Your task to perform on an android device: Open Android settings Image 0: 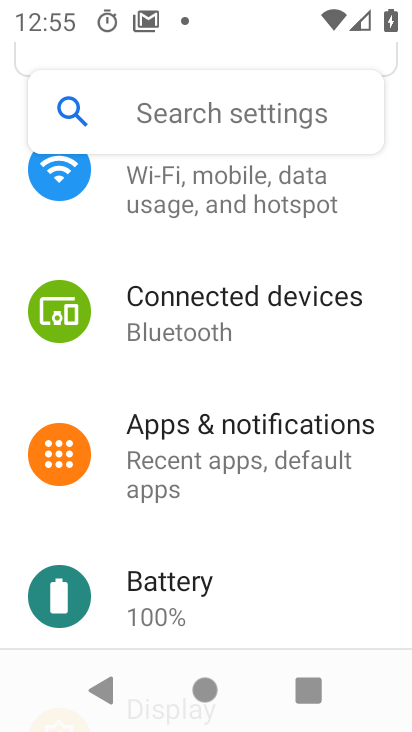
Step 0: drag from (226, 542) to (149, 235)
Your task to perform on an android device: Open Android settings Image 1: 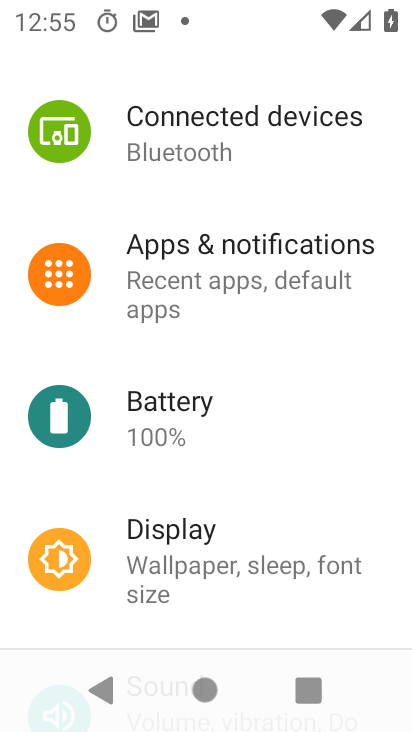
Step 1: drag from (249, 592) to (250, 199)
Your task to perform on an android device: Open Android settings Image 2: 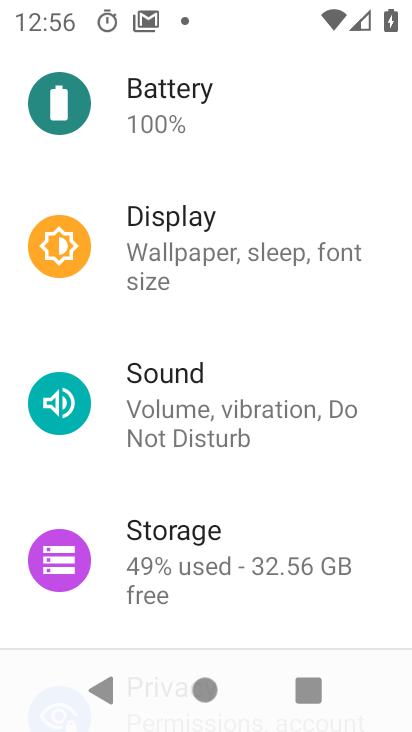
Step 2: drag from (258, 488) to (158, 178)
Your task to perform on an android device: Open Android settings Image 3: 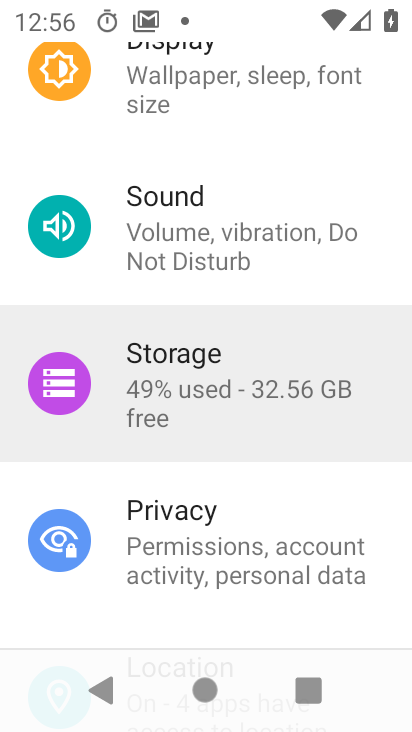
Step 3: drag from (247, 510) to (197, 50)
Your task to perform on an android device: Open Android settings Image 4: 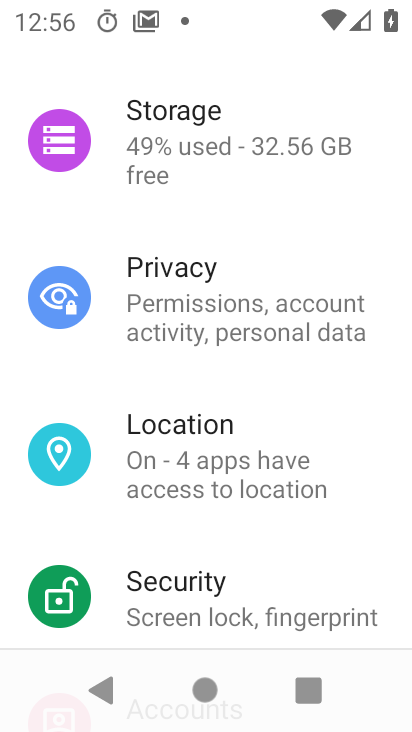
Step 4: drag from (262, 458) to (222, 74)
Your task to perform on an android device: Open Android settings Image 5: 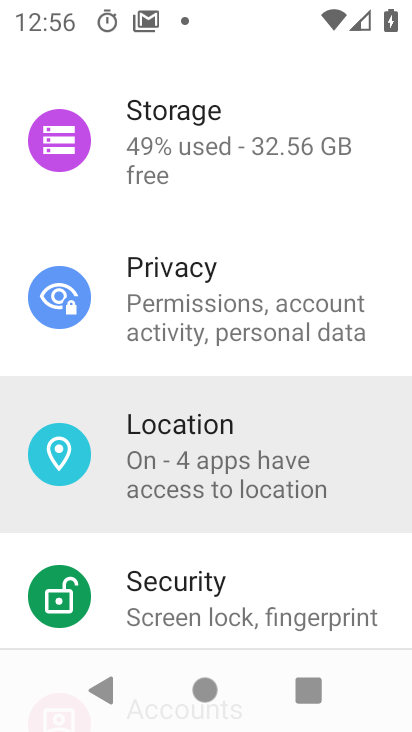
Step 5: drag from (237, 588) to (153, 63)
Your task to perform on an android device: Open Android settings Image 6: 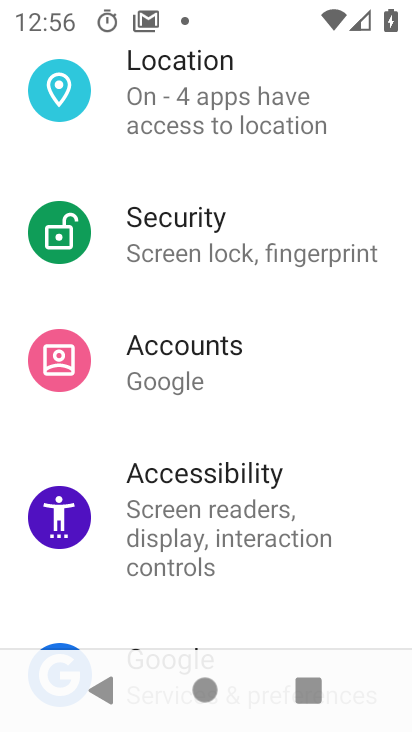
Step 6: drag from (215, 506) to (249, 116)
Your task to perform on an android device: Open Android settings Image 7: 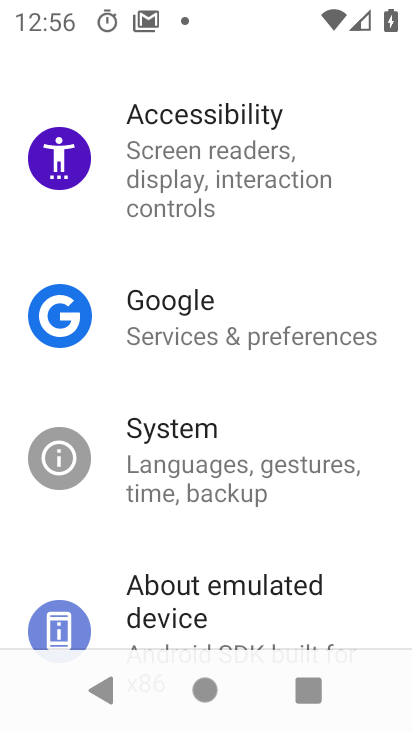
Step 7: drag from (239, 505) to (215, 159)
Your task to perform on an android device: Open Android settings Image 8: 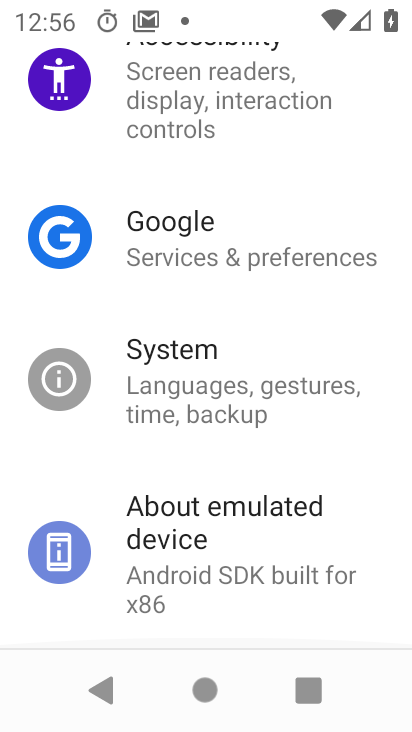
Step 8: drag from (214, 527) to (206, 174)
Your task to perform on an android device: Open Android settings Image 9: 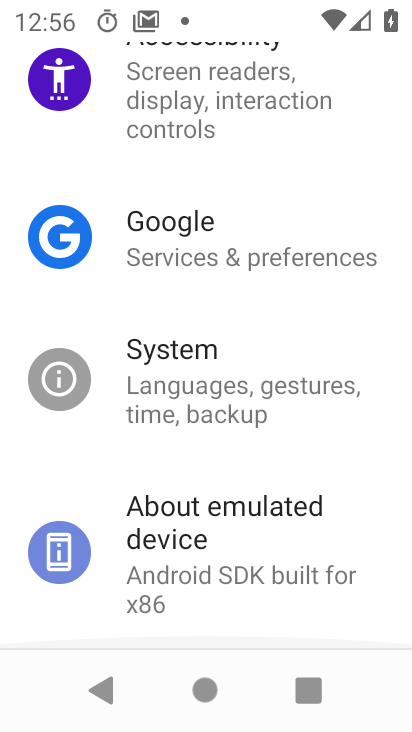
Step 9: drag from (249, 508) to (222, 162)
Your task to perform on an android device: Open Android settings Image 10: 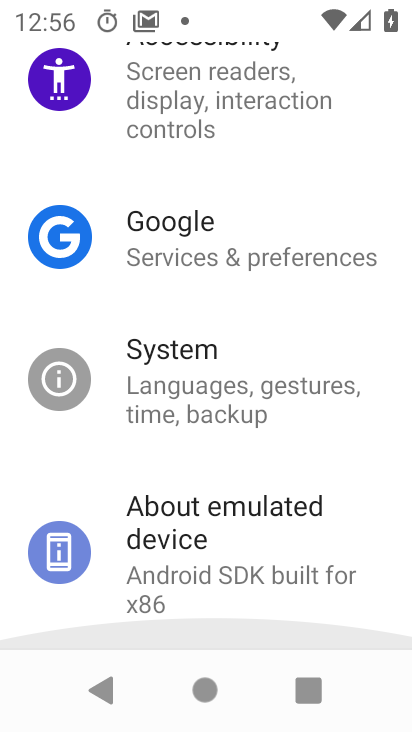
Step 10: drag from (253, 503) to (180, 65)
Your task to perform on an android device: Open Android settings Image 11: 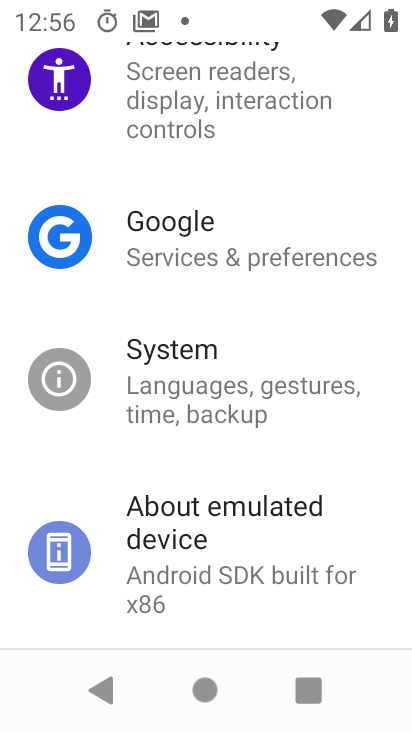
Step 11: click (197, 539)
Your task to perform on an android device: Open Android settings Image 12: 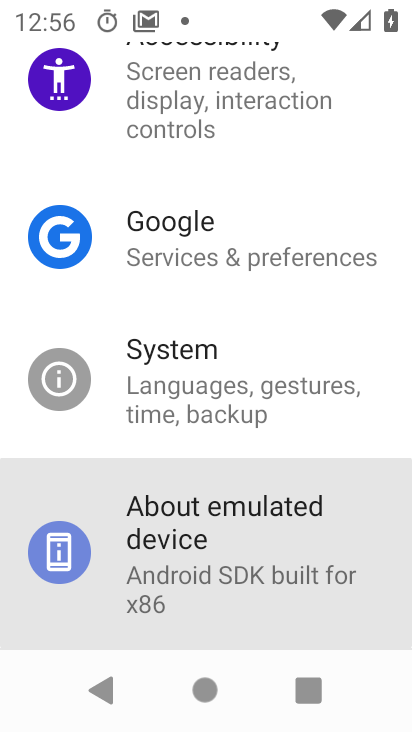
Step 12: click (197, 542)
Your task to perform on an android device: Open Android settings Image 13: 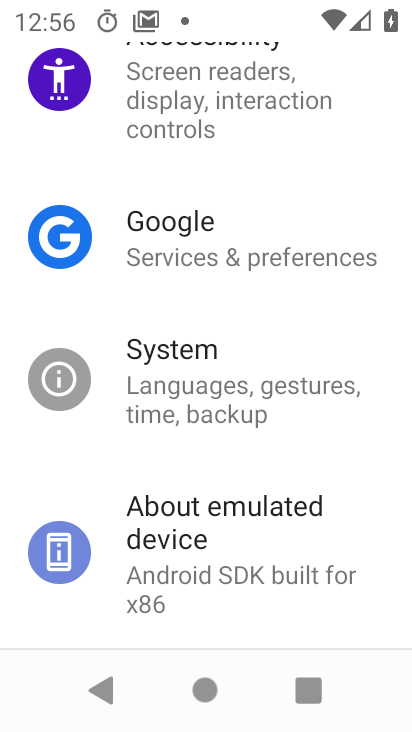
Step 13: click (198, 547)
Your task to perform on an android device: Open Android settings Image 14: 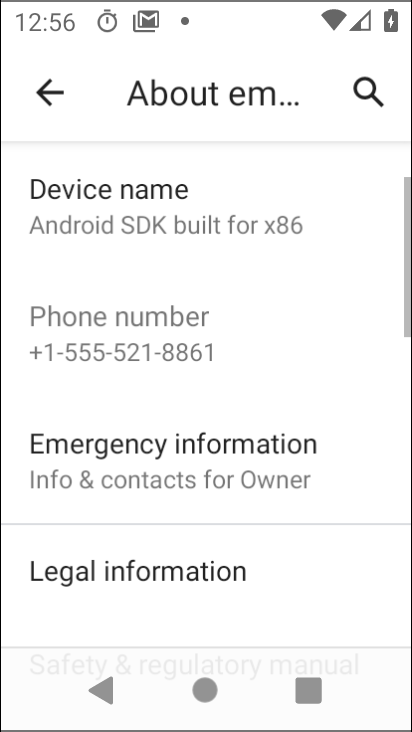
Step 14: click (198, 547)
Your task to perform on an android device: Open Android settings Image 15: 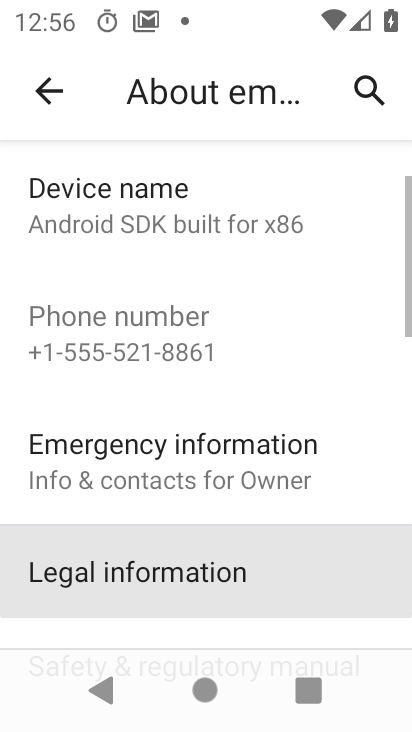
Step 15: click (198, 547)
Your task to perform on an android device: Open Android settings Image 16: 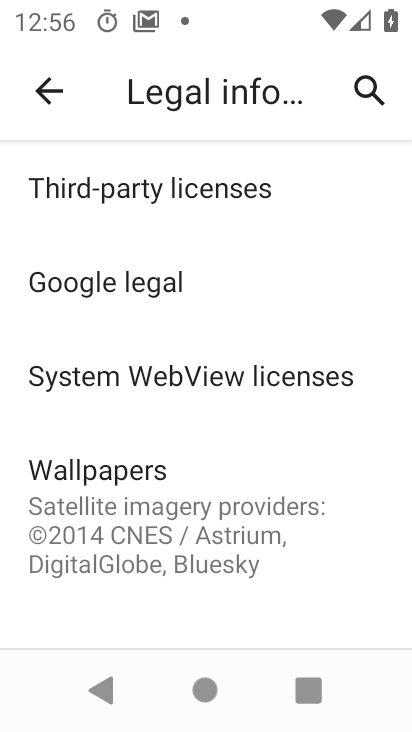
Step 16: click (43, 78)
Your task to perform on an android device: Open Android settings Image 17: 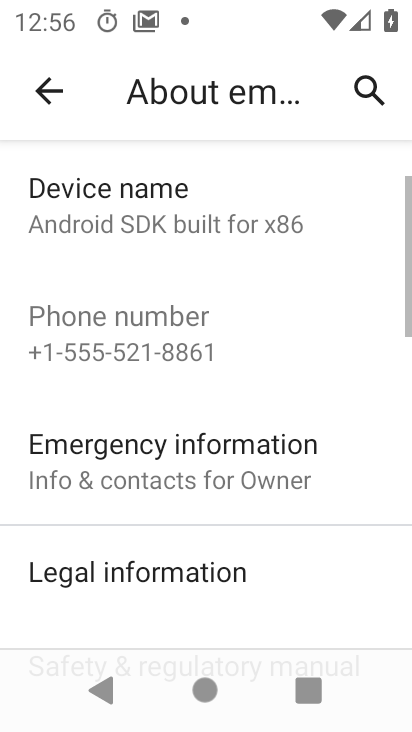
Step 17: task complete